Your task to perform on an android device: clear all cookies in the chrome app Image 0: 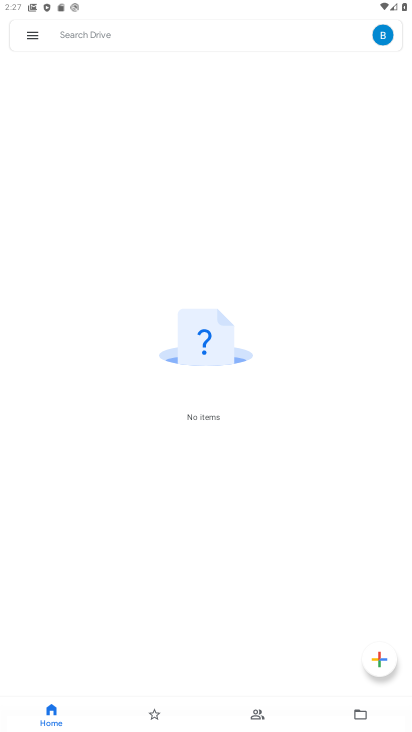
Step 0: press home button
Your task to perform on an android device: clear all cookies in the chrome app Image 1: 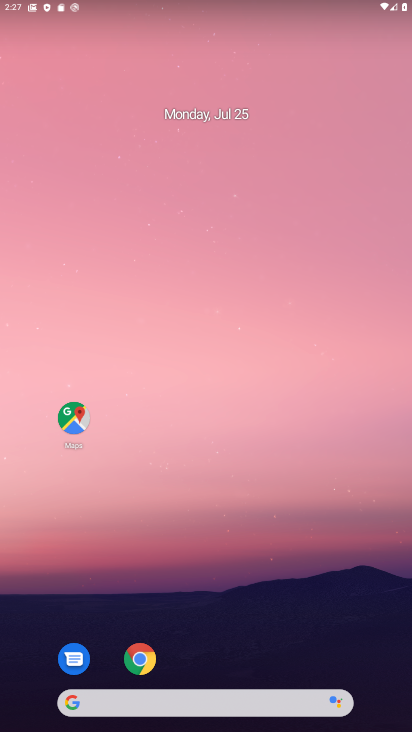
Step 1: click (146, 668)
Your task to perform on an android device: clear all cookies in the chrome app Image 2: 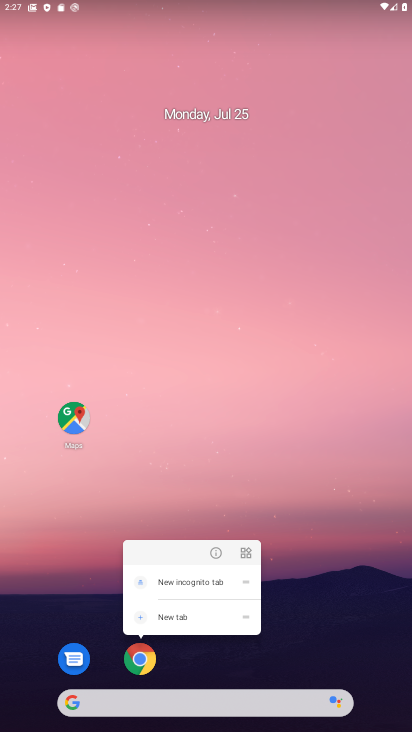
Step 2: click (140, 657)
Your task to perform on an android device: clear all cookies in the chrome app Image 3: 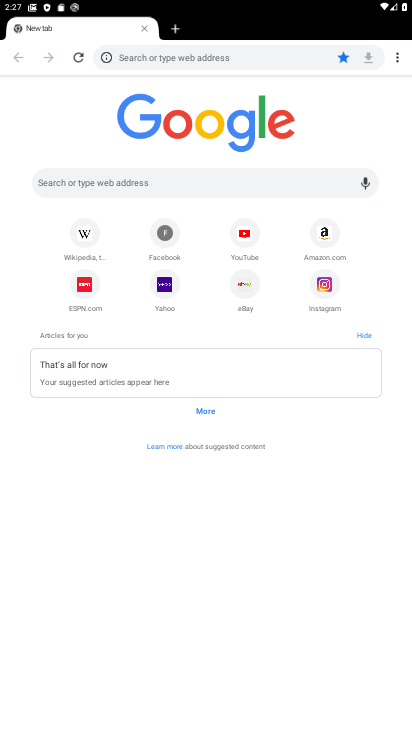
Step 3: click (398, 56)
Your task to perform on an android device: clear all cookies in the chrome app Image 4: 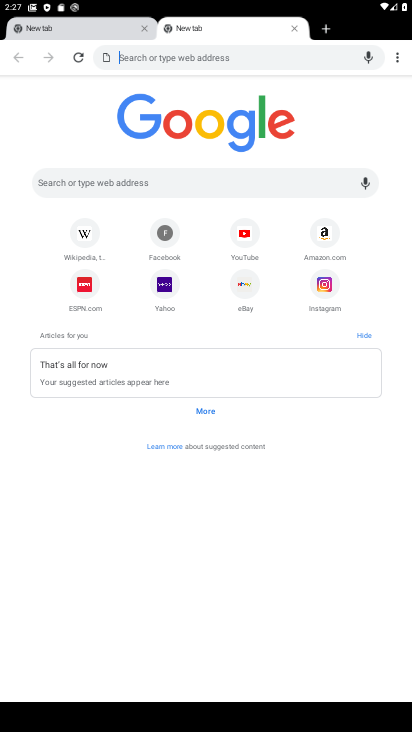
Step 4: click (398, 56)
Your task to perform on an android device: clear all cookies in the chrome app Image 5: 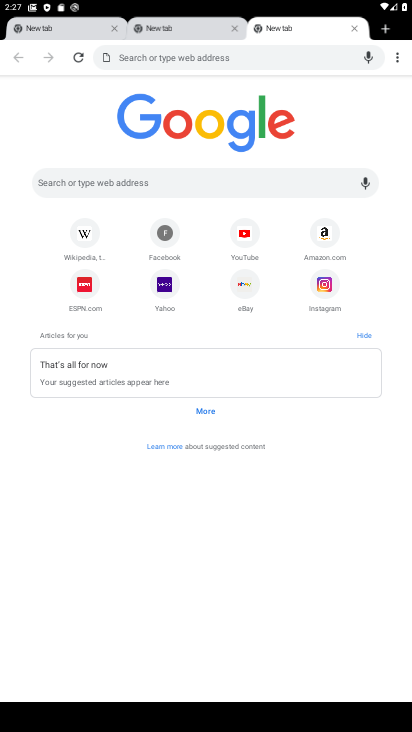
Step 5: click (398, 56)
Your task to perform on an android device: clear all cookies in the chrome app Image 6: 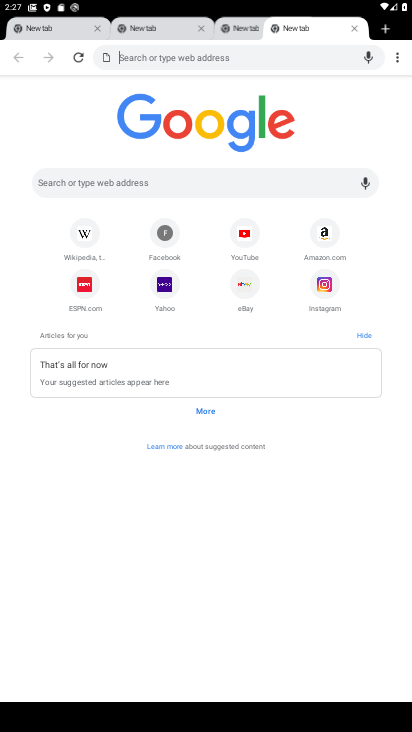
Step 6: click (393, 49)
Your task to perform on an android device: clear all cookies in the chrome app Image 7: 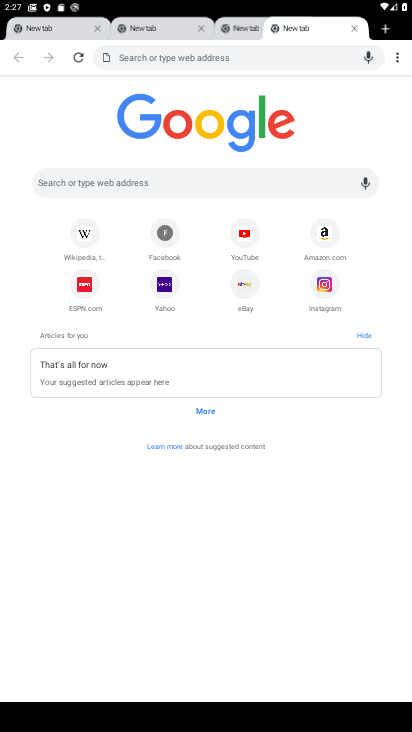
Step 7: click (393, 53)
Your task to perform on an android device: clear all cookies in the chrome app Image 8: 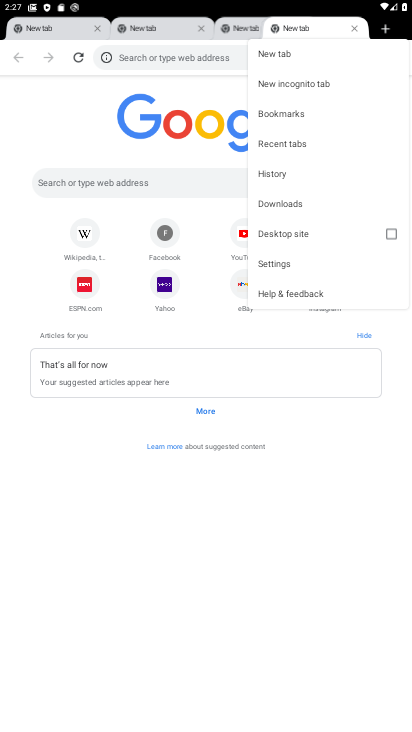
Step 8: click (289, 171)
Your task to perform on an android device: clear all cookies in the chrome app Image 9: 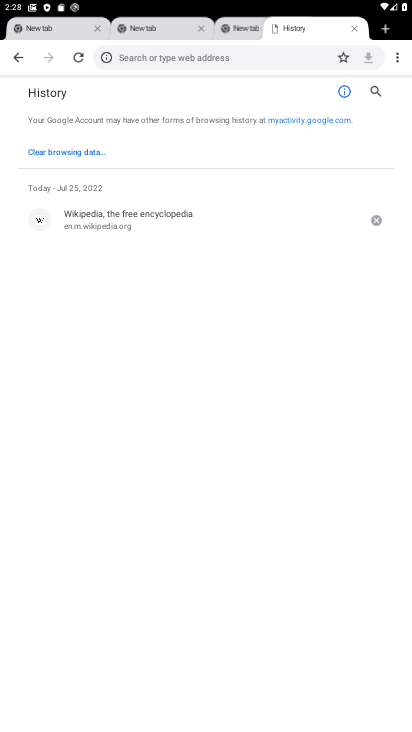
Step 9: click (67, 147)
Your task to perform on an android device: clear all cookies in the chrome app Image 10: 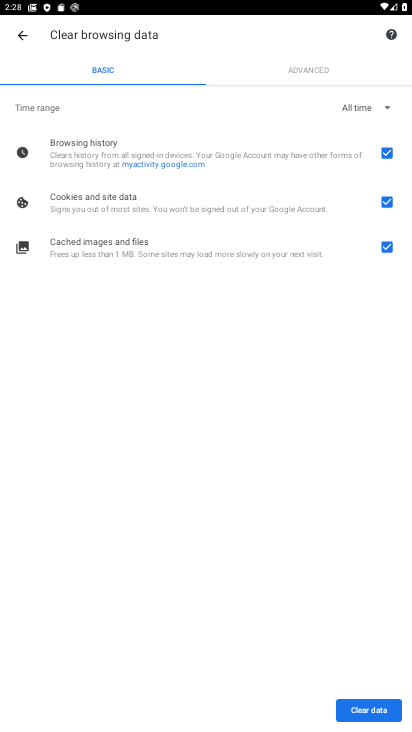
Step 10: click (377, 705)
Your task to perform on an android device: clear all cookies in the chrome app Image 11: 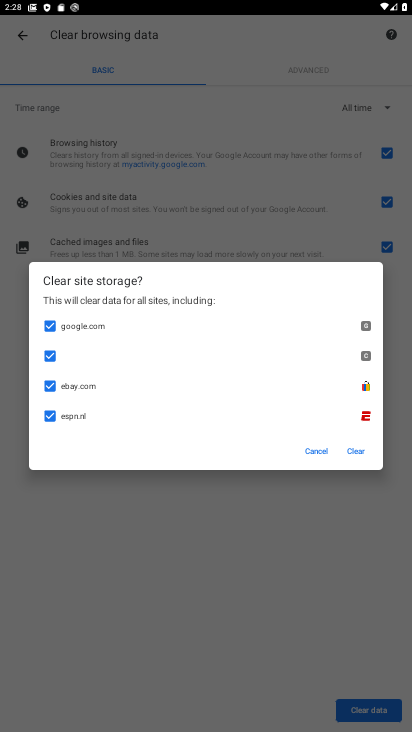
Step 11: click (355, 449)
Your task to perform on an android device: clear all cookies in the chrome app Image 12: 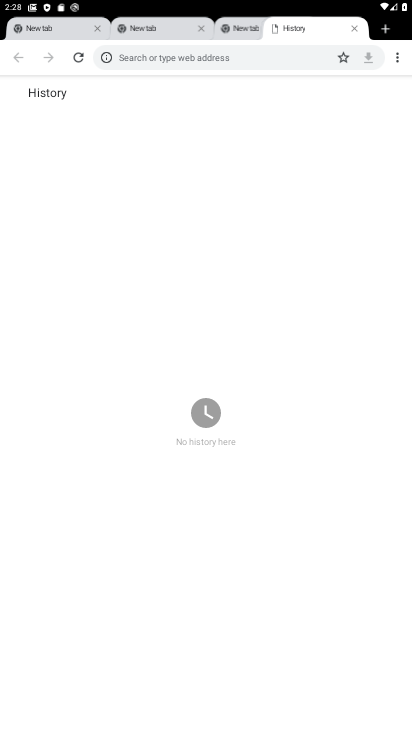
Step 12: task complete